Your task to perform on an android device: find snoozed emails in the gmail app Image 0: 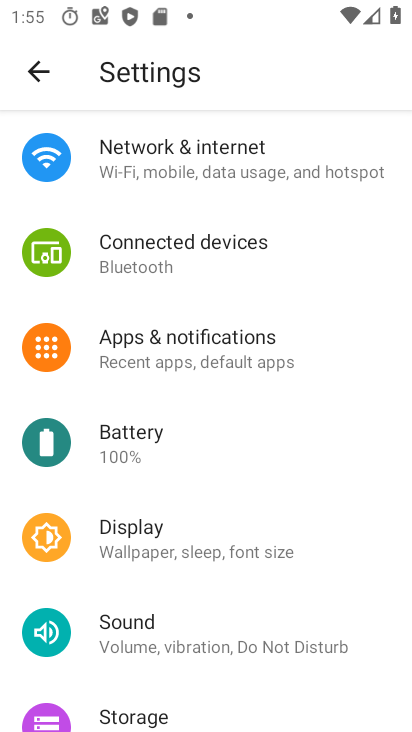
Step 0: press home button
Your task to perform on an android device: find snoozed emails in the gmail app Image 1: 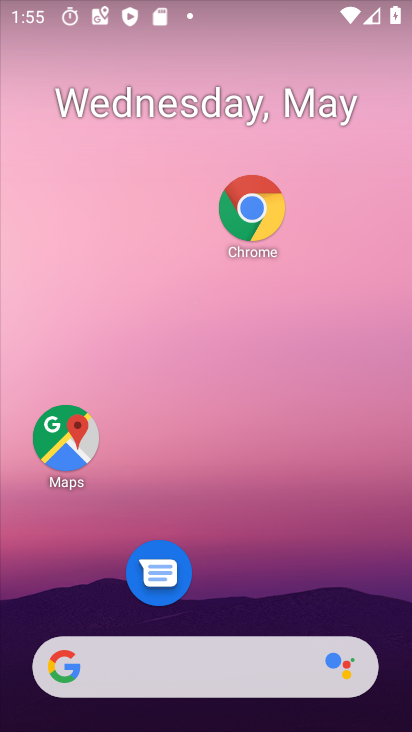
Step 1: drag from (252, 606) to (261, 118)
Your task to perform on an android device: find snoozed emails in the gmail app Image 2: 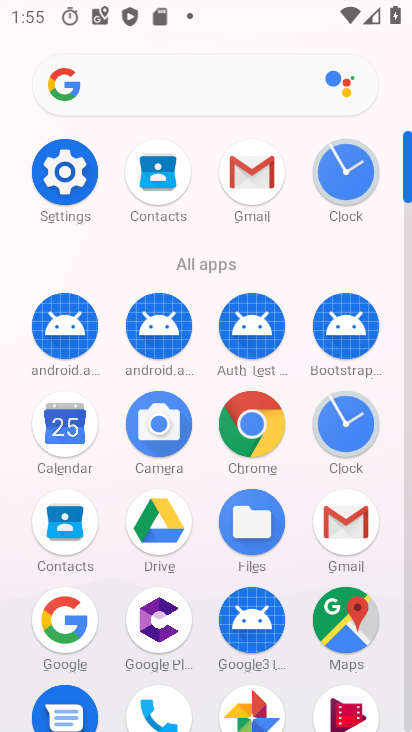
Step 2: click (258, 164)
Your task to perform on an android device: find snoozed emails in the gmail app Image 3: 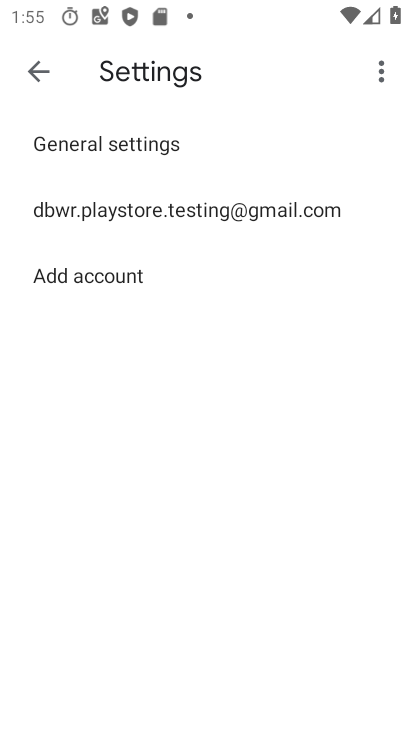
Step 3: click (56, 74)
Your task to perform on an android device: find snoozed emails in the gmail app Image 4: 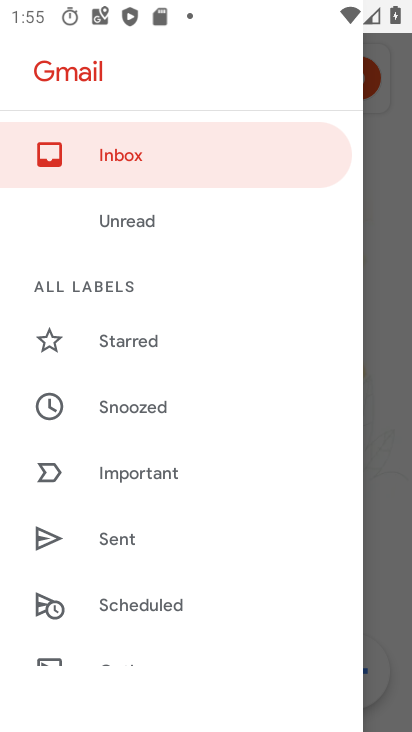
Step 4: click (106, 393)
Your task to perform on an android device: find snoozed emails in the gmail app Image 5: 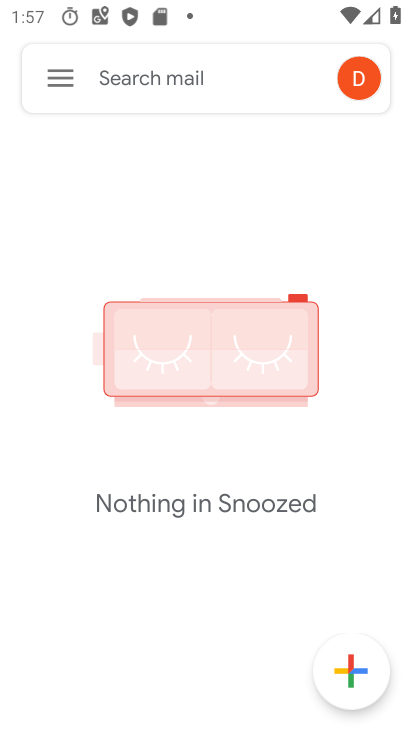
Step 5: task complete